Your task to perform on an android device: Search for the best rated kitchen reno kits on Lowes.com Image 0: 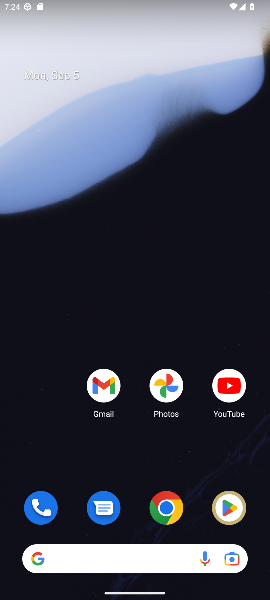
Step 0: click (177, 499)
Your task to perform on an android device: Search for the best rated kitchen reno kits on Lowes.com Image 1: 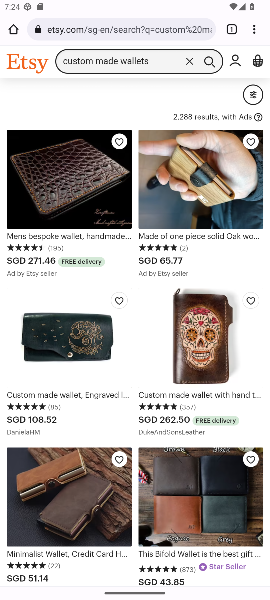
Step 1: click (194, 28)
Your task to perform on an android device: Search for the best rated kitchen reno kits on Lowes.com Image 2: 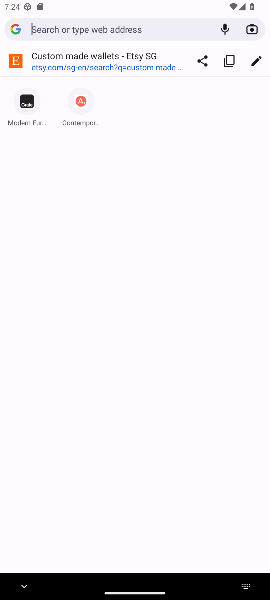
Step 2: type "Lowes.com"
Your task to perform on an android device: Search for the best rated kitchen reno kits on Lowes.com Image 3: 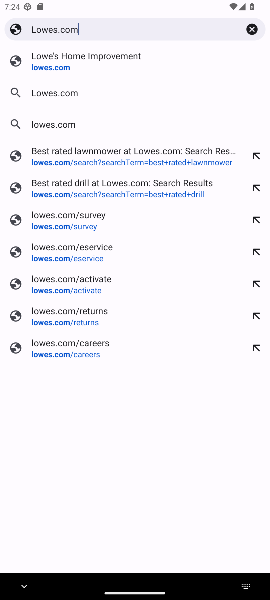
Step 3: click (53, 98)
Your task to perform on an android device: Search for the best rated kitchen reno kits on Lowes.com Image 4: 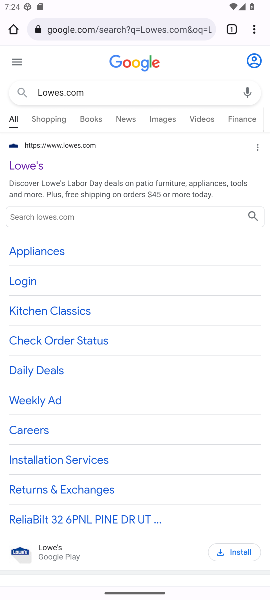
Step 4: click (23, 170)
Your task to perform on an android device: Search for the best rated kitchen reno kits on Lowes.com Image 5: 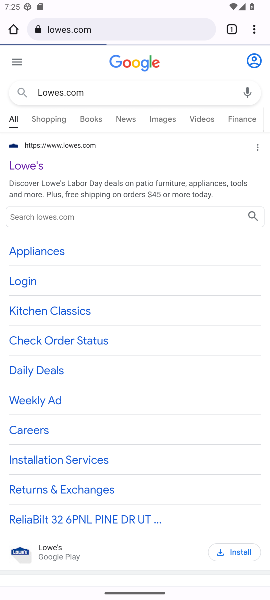
Step 5: click (30, 164)
Your task to perform on an android device: Search for the best rated kitchen reno kits on Lowes.com Image 6: 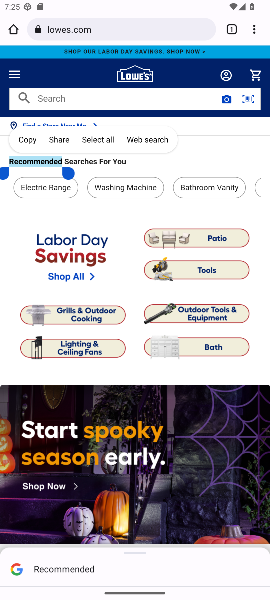
Step 6: click (176, 98)
Your task to perform on an android device: Search for the best rated kitchen reno kits on Lowes.com Image 7: 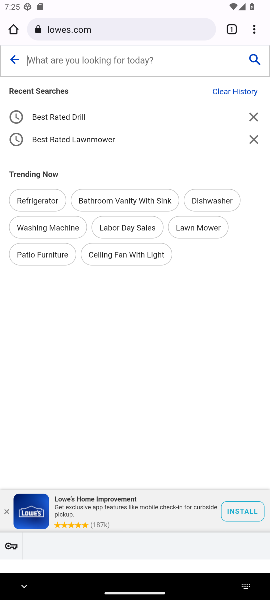
Step 7: type "best rated kitchen reno kits "
Your task to perform on an android device: Search for the best rated kitchen reno kits on Lowes.com Image 8: 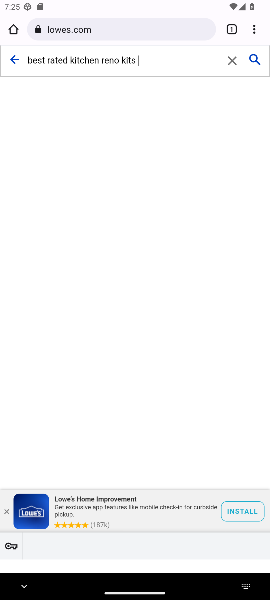
Step 8: click (266, 61)
Your task to perform on an android device: Search for the best rated kitchen reno kits on Lowes.com Image 9: 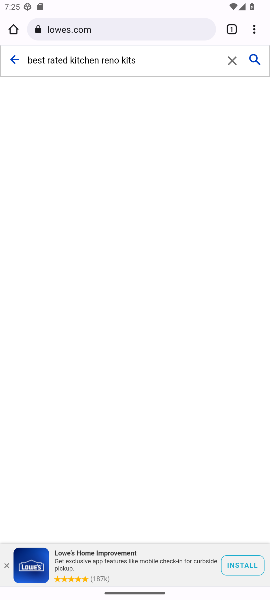
Step 9: click (254, 62)
Your task to perform on an android device: Search for the best rated kitchen reno kits on Lowes.com Image 10: 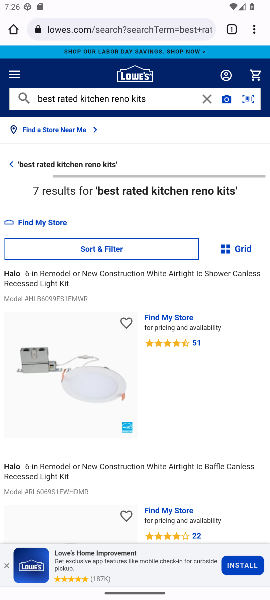
Step 10: task complete